Your task to perform on an android device: Clear the shopping cart on newegg. Search for dell alienware on newegg, select the first entry, and add it to the cart. Image 0: 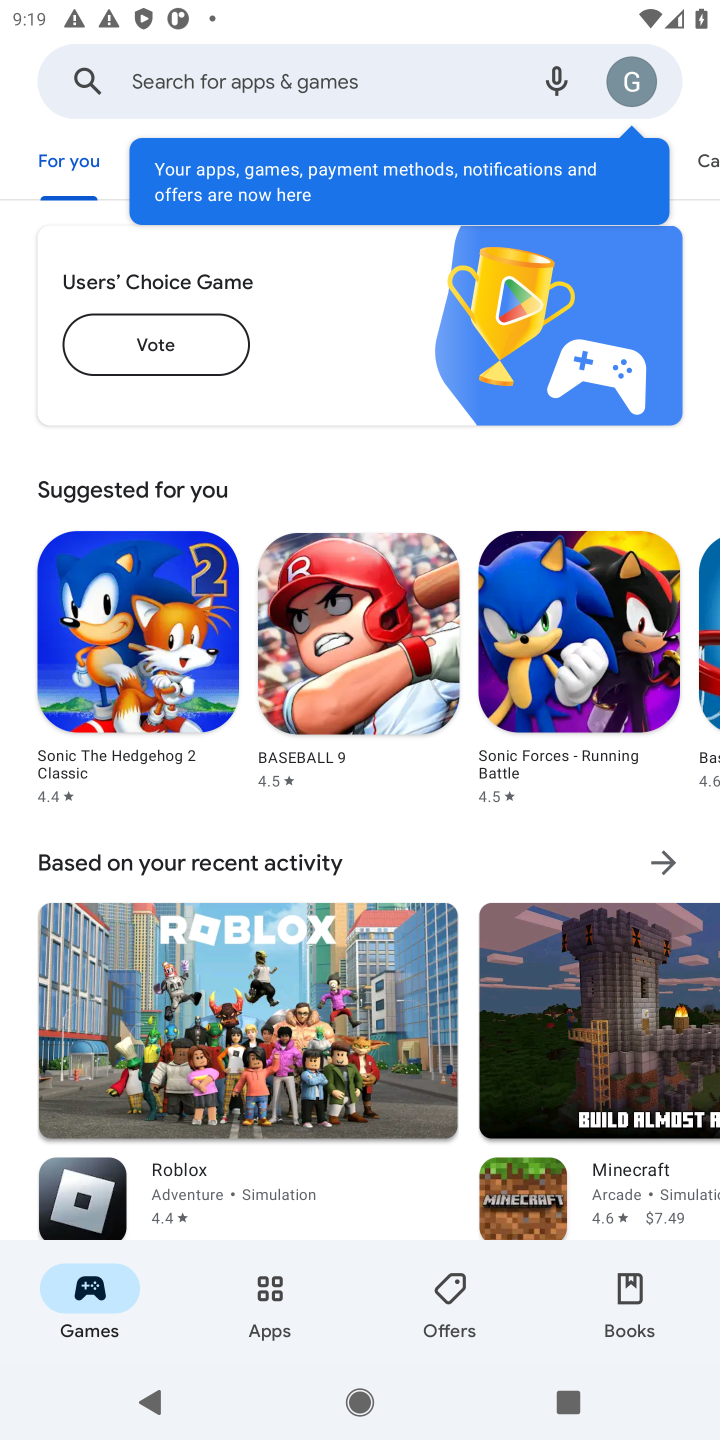
Step 0: press home button
Your task to perform on an android device: Clear the shopping cart on newegg. Search for dell alienware on newegg, select the first entry, and add it to the cart. Image 1: 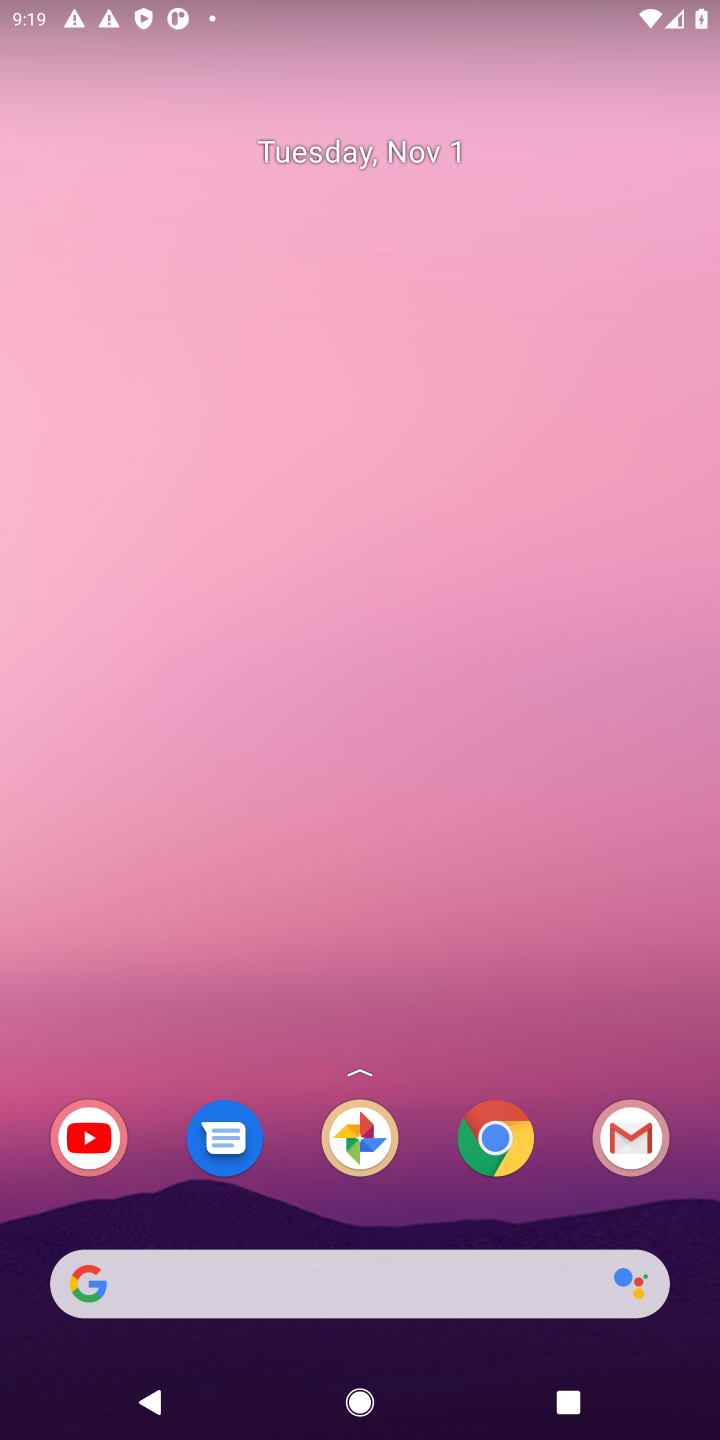
Step 1: click (494, 1137)
Your task to perform on an android device: Clear the shopping cart on newegg. Search for dell alienware on newegg, select the first entry, and add it to the cart. Image 2: 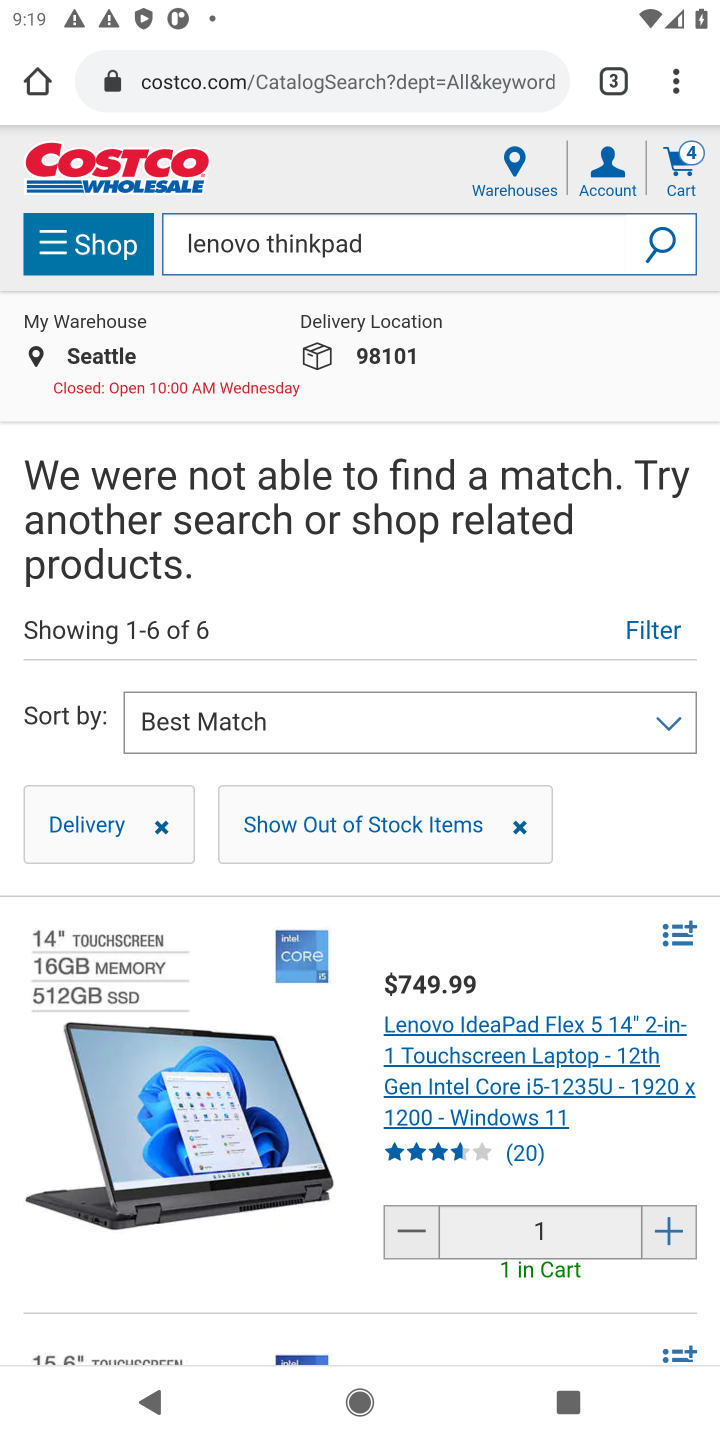
Step 2: drag from (670, 87) to (371, 178)
Your task to perform on an android device: Clear the shopping cart on newegg. Search for dell alienware on newegg, select the first entry, and add it to the cart. Image 3: 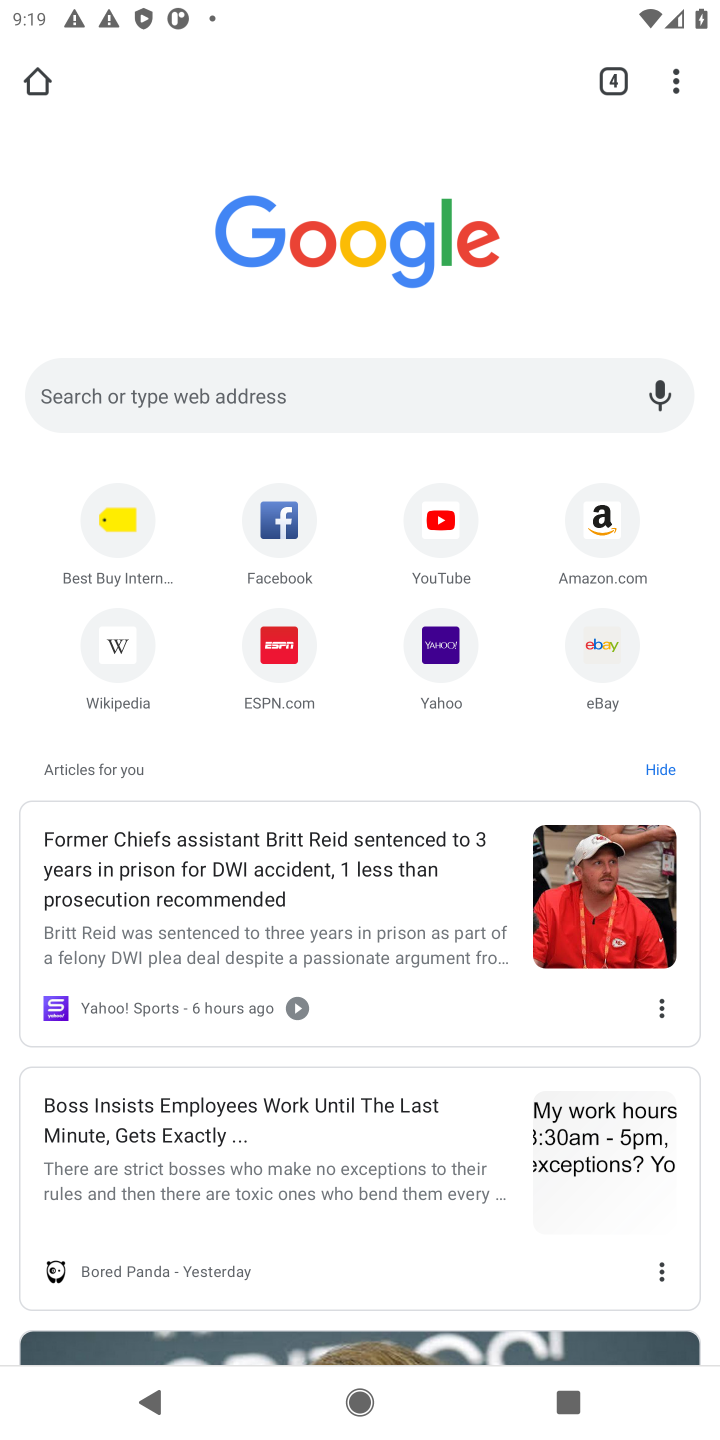
Step 3: click (253, 398)
Your task to perform on an android device: Clear the shopping cart on newegg. Search for dell alienware on newegg, select the first entry, and add it to the cart. Image 4: 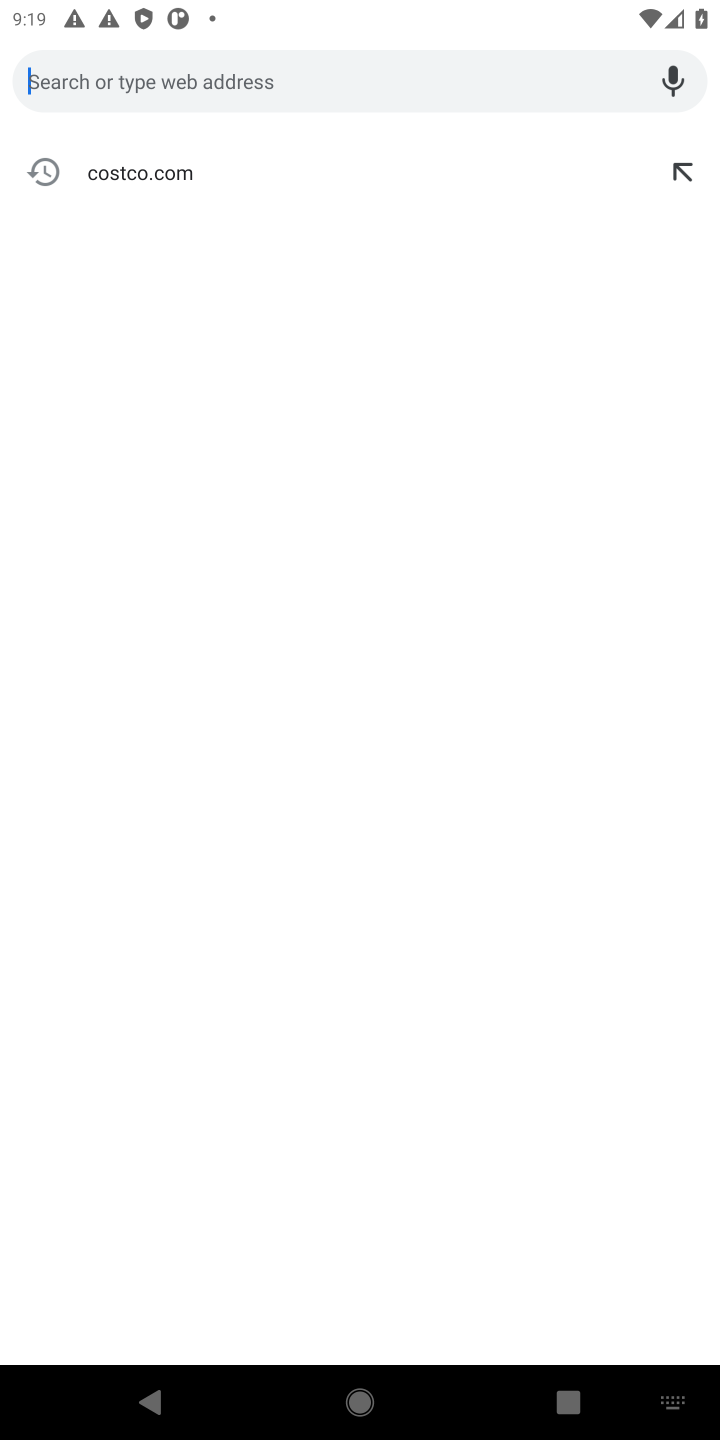
Step 4: type "newegg"
Your task to perform on an android device: Clear the shopping cart on newegg. Search for dell alienware on newegg, select the first entry, and add it to the cart. Image 5: 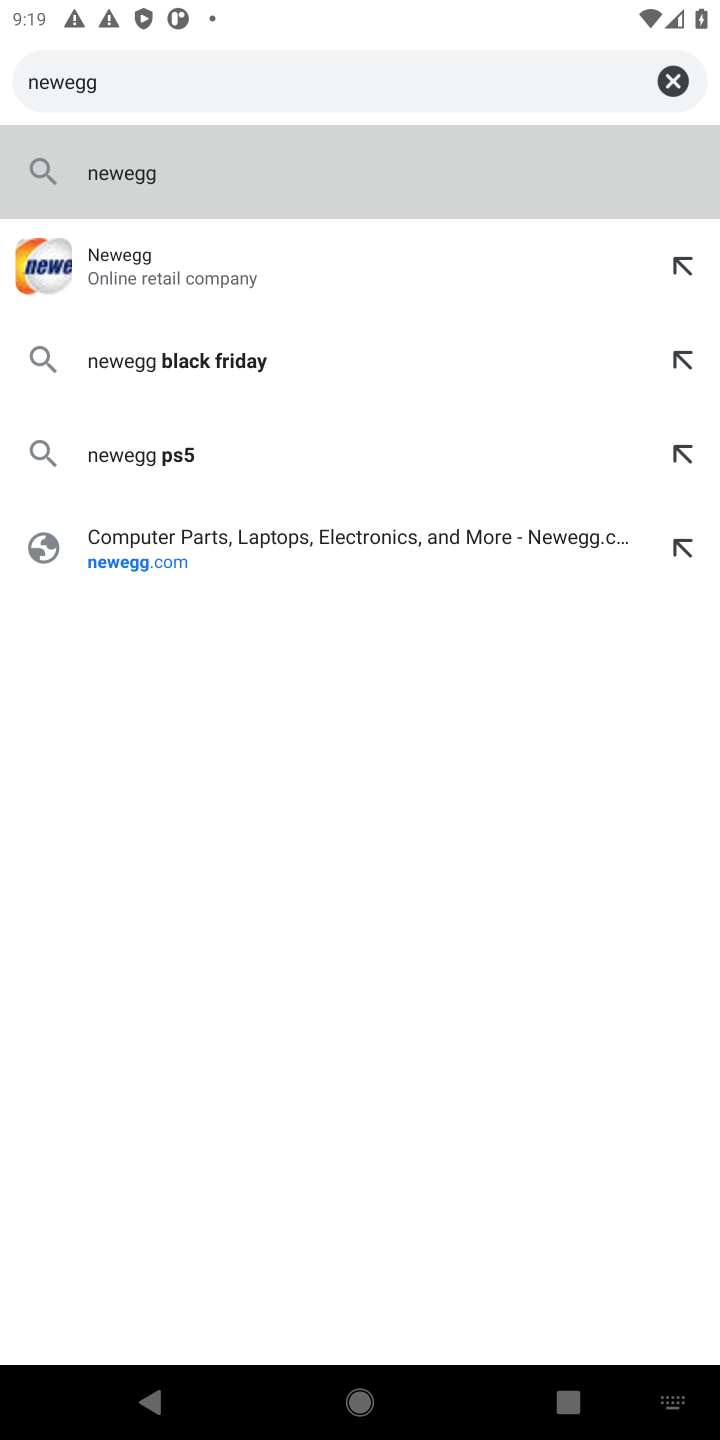
Step 5: type ""
Your task to perform on an android device: Clear the shopping cart on newegg. Search for dell alienware on newegg, select the first entry, and add it to the cart. Image 6: 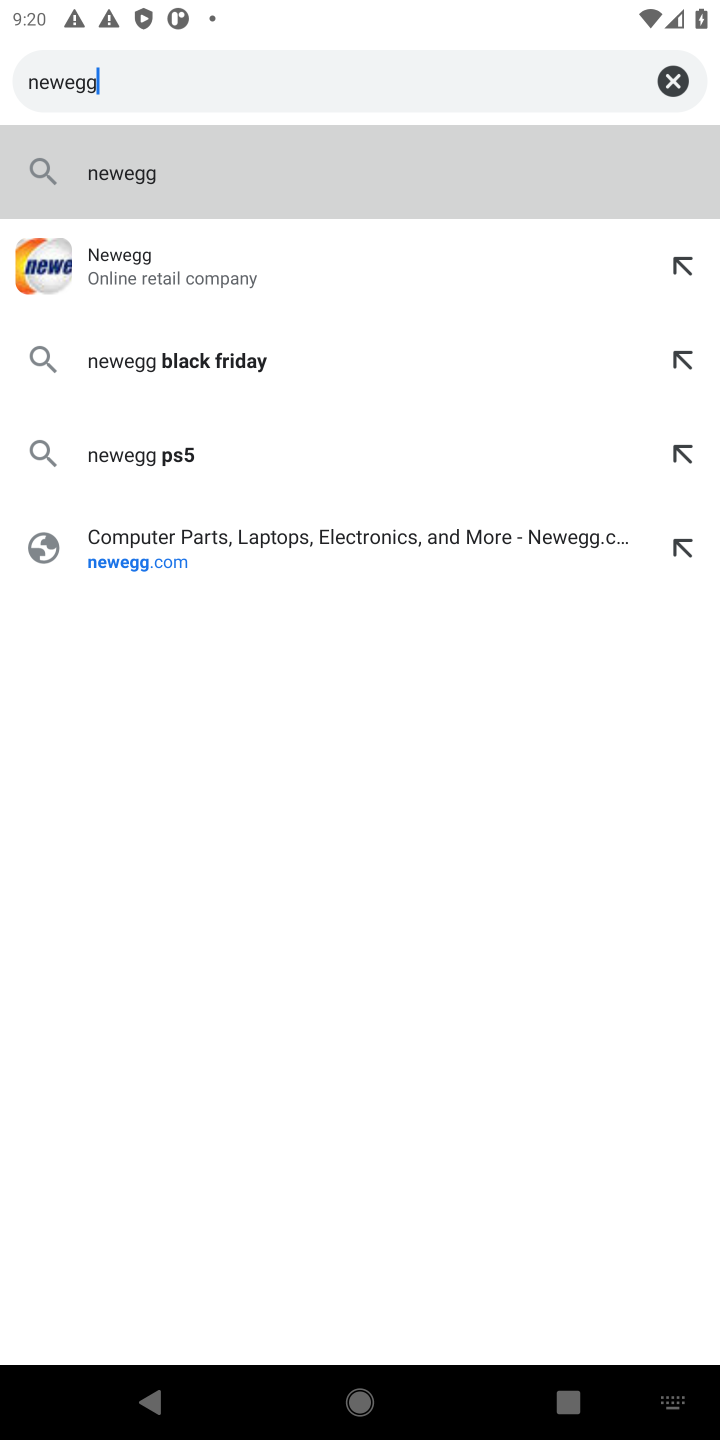
Step 6: click (119, 162)
Your task to perform on an android device: Clear the shopping cart on newegg. Search for dell alienware on newegg, select the first entry, and add it to the cart. Image 7: 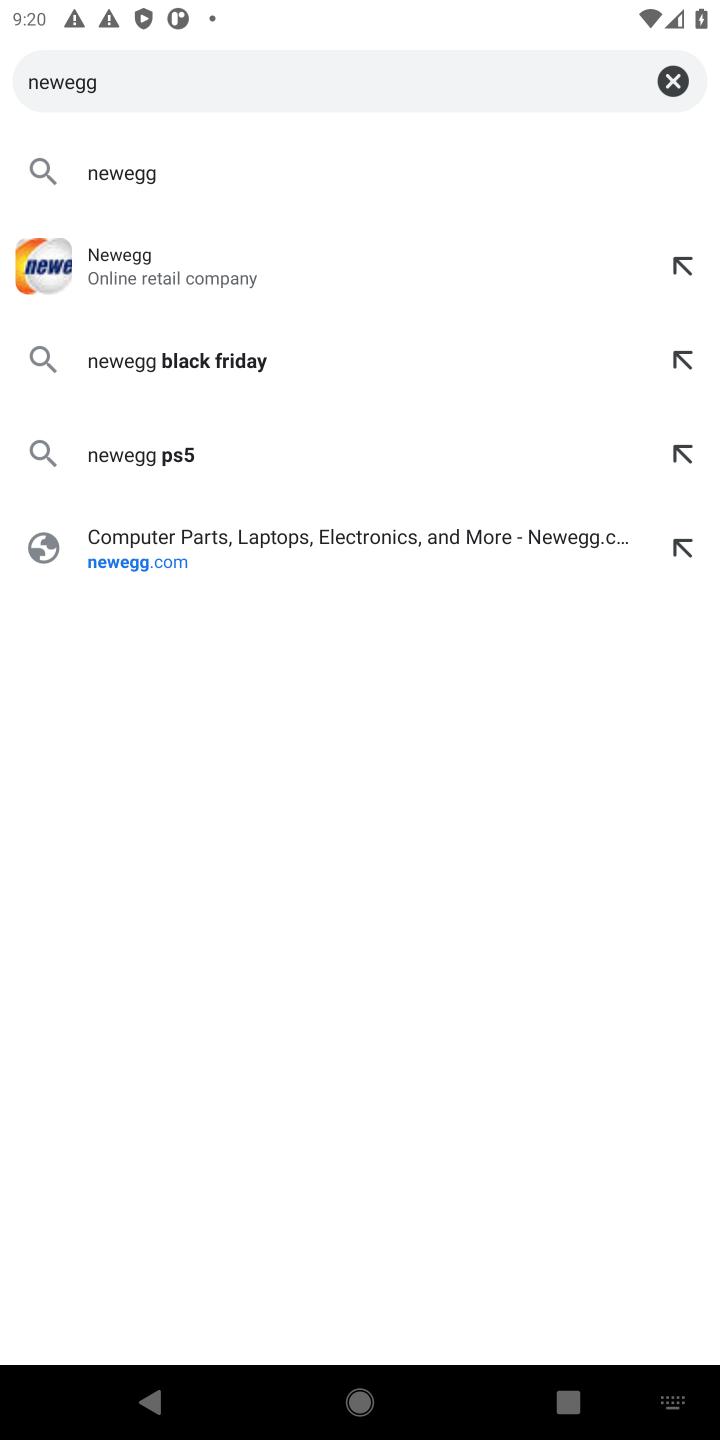
Step 7: click (148, 250)
Your task to perform on an android device: Clear the shopping cart on newegg. Search for dell alienware on newegg, select the first entry, and add it to the cart. Image 8: 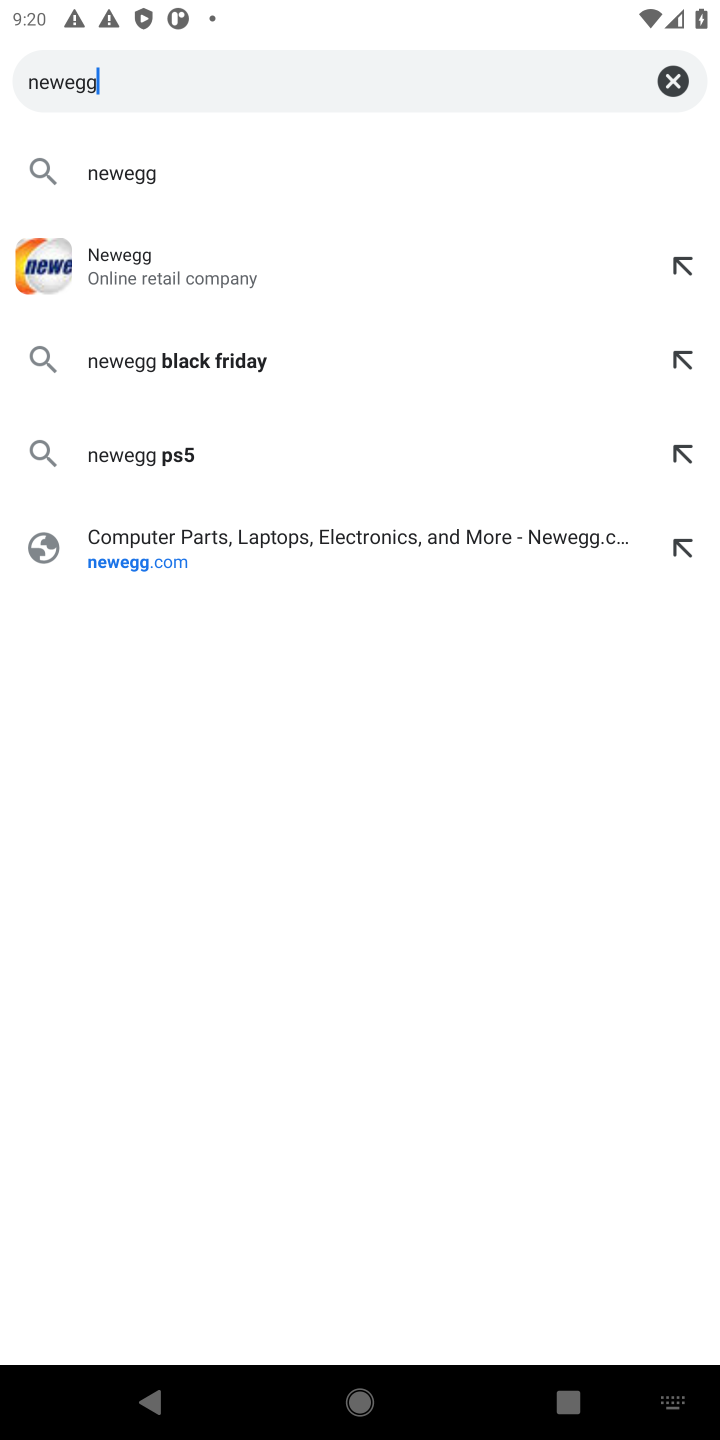
Step 8: click (106, 274)
Your task to perform on an android device: Clear the shopping cart on newegg. Search for dell alienware on newegg, select the first entry, and add it to the cart. Image 9: 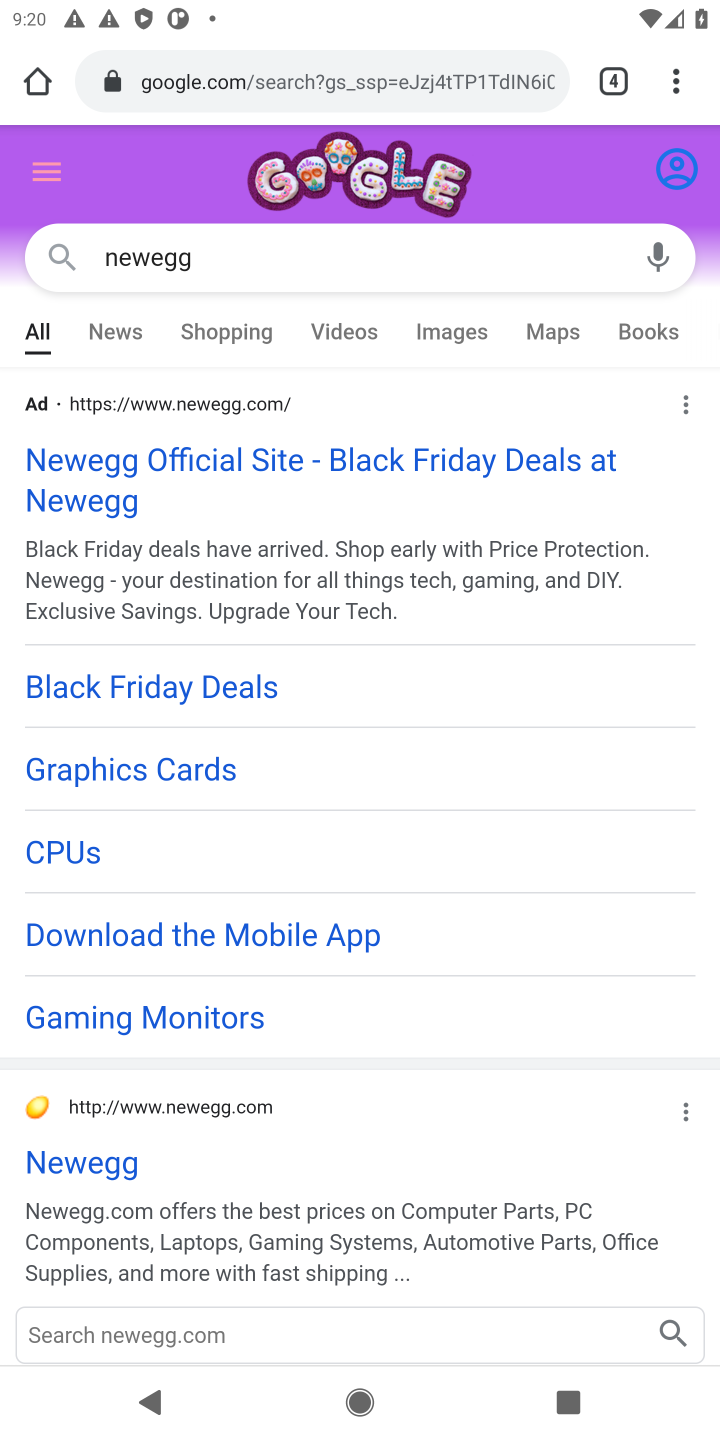
Step 9: click (102, 1163)
Your task to perform on an android device: Clear the shopping cart on newegg. Search for dell alienware on newegg, select the first entry, and add it to the cart. Image 10: 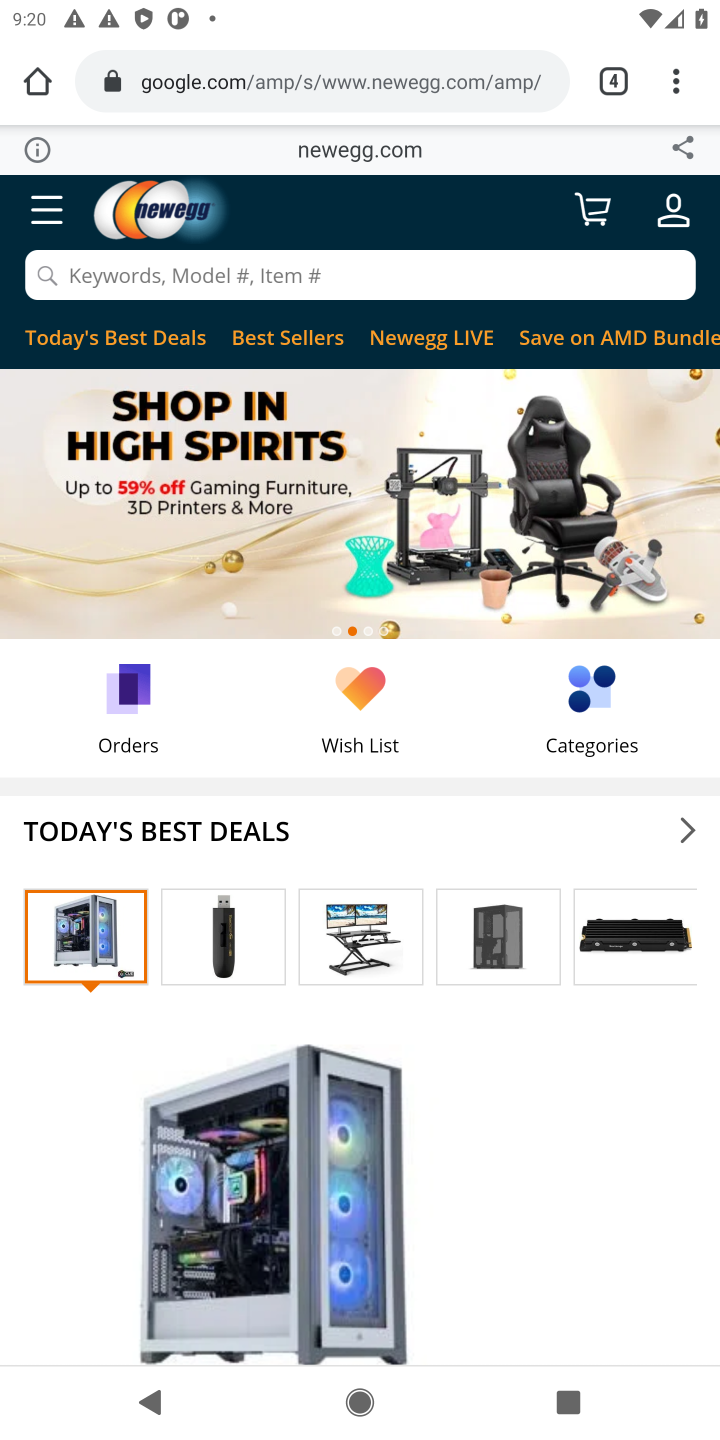
Step 10: click (55, 221)
Your task to perform on an android device: Clear the shopping cart on newegg. Search for dell alienware on newegg, select the first entry, and add it to the cart. Image 11: 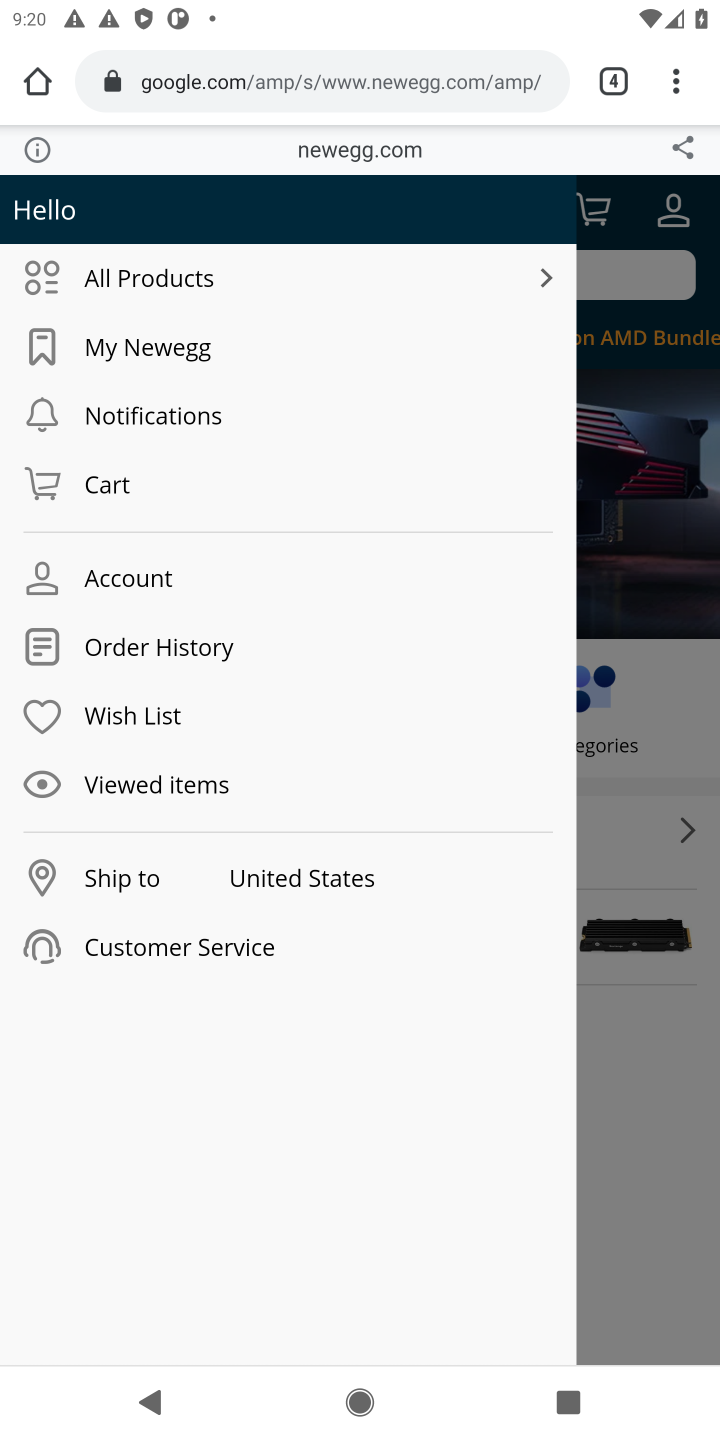
Step 11: click (48, 205)
Your task to perform on an android device: Clear the shopping cart on newegg. Search for dell alienware on newegg, select the first entry, and add it to the cart. Image 12: 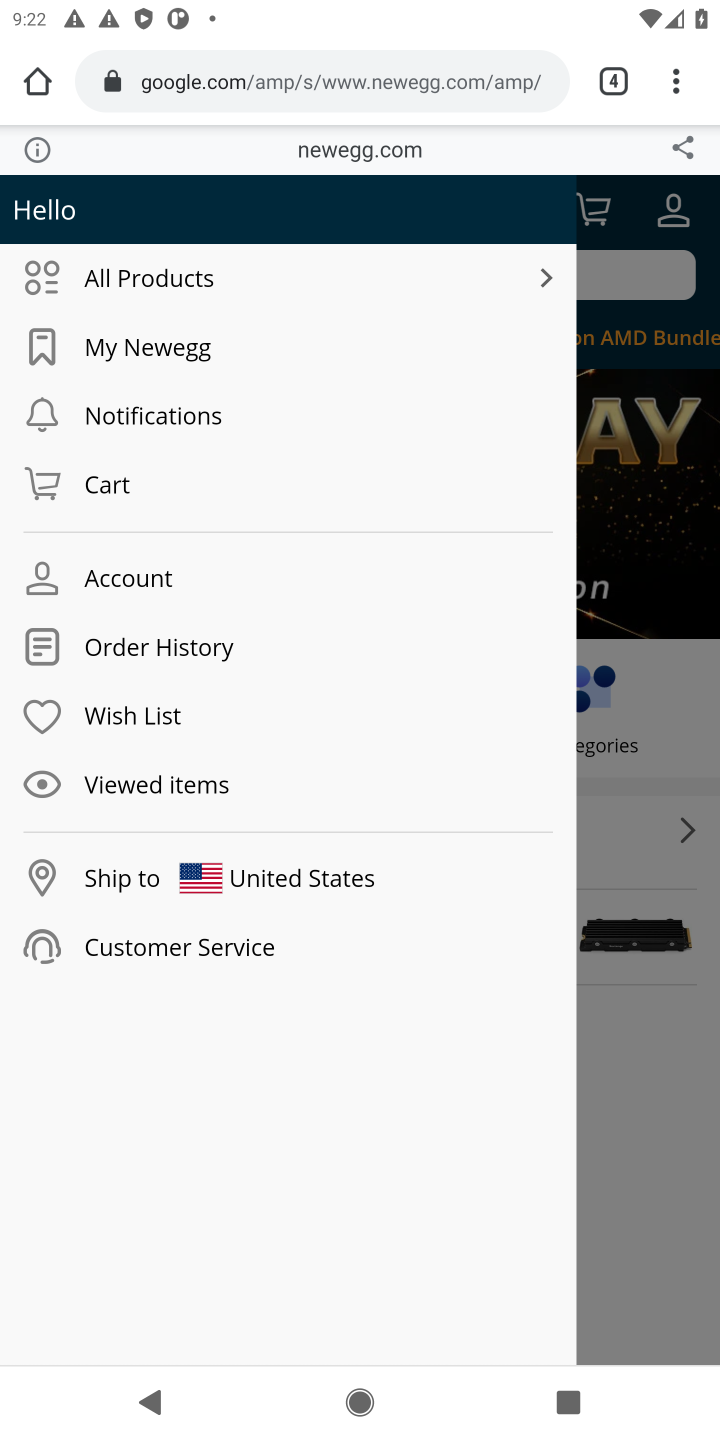
Step 12: click (93, 486)
Your task to perform on an android device: Clear the shopping cart on newegg. Search for dell alienware on newegg, select the first entry, and add it to the cart. Image 13: 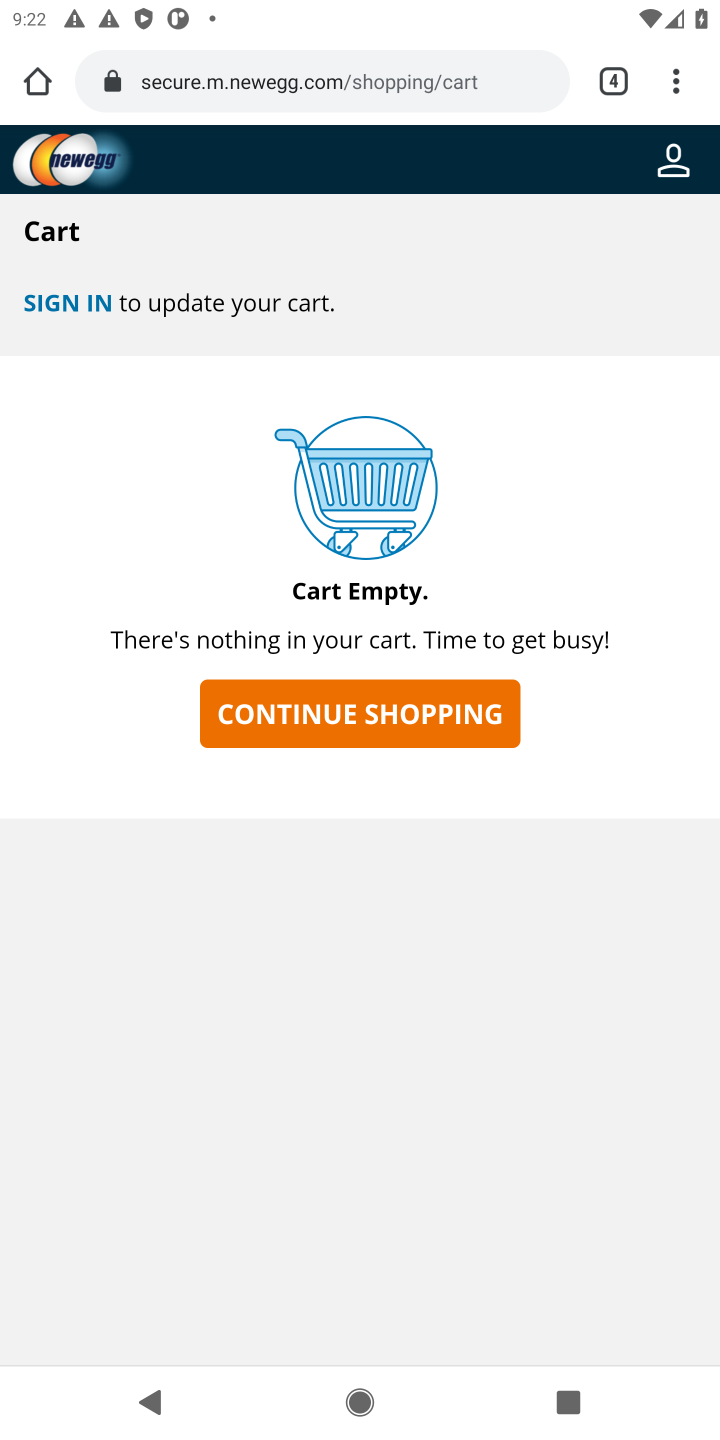
Step 13: click (261, 729)
Your task to perform on an android device: Clear the shopping cart on newegg. Search for dell alienware on newegg, select the first entry, and add it to the cart. Image 14: 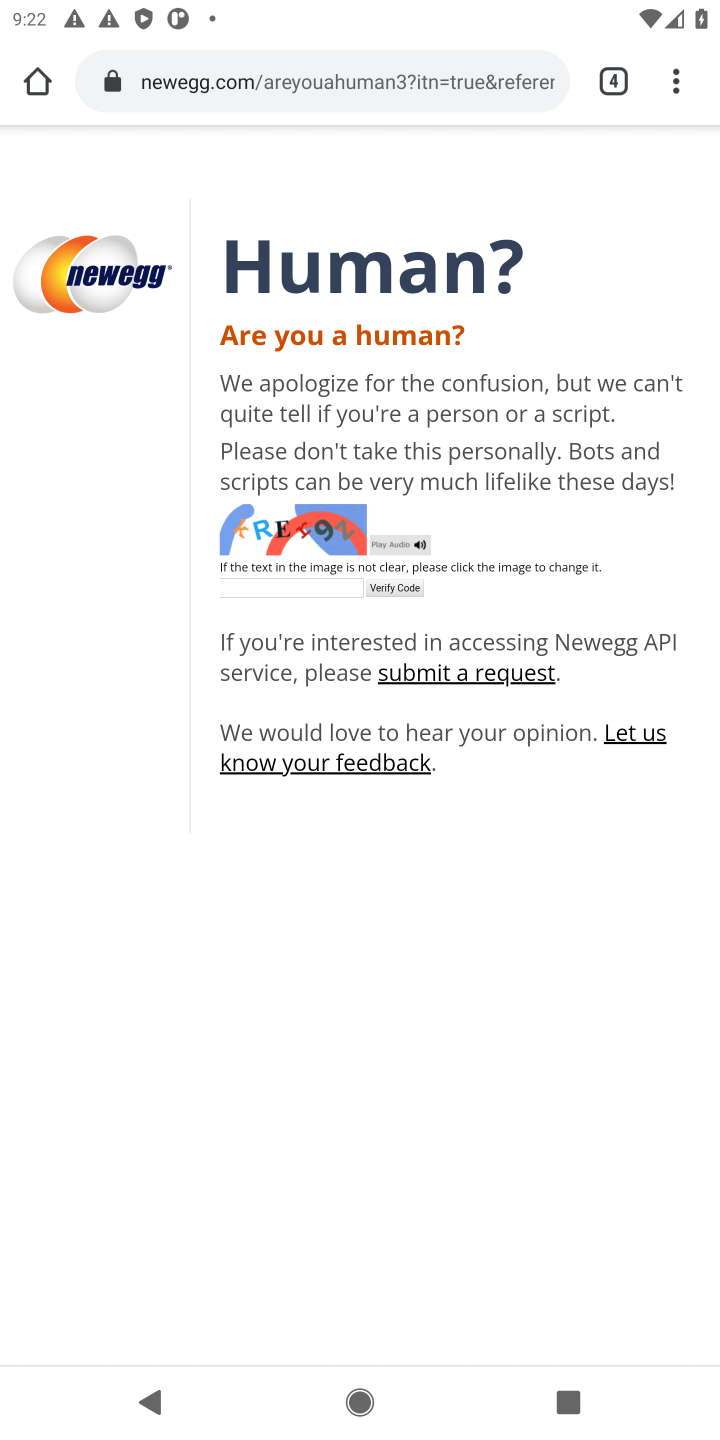
Step 14: click (379, 338)
Your task to perform on an android device: Clear the shopping cart on newegg. Search for dell alienware on newegg, select the first entry, and add it to the cart. Image 15: 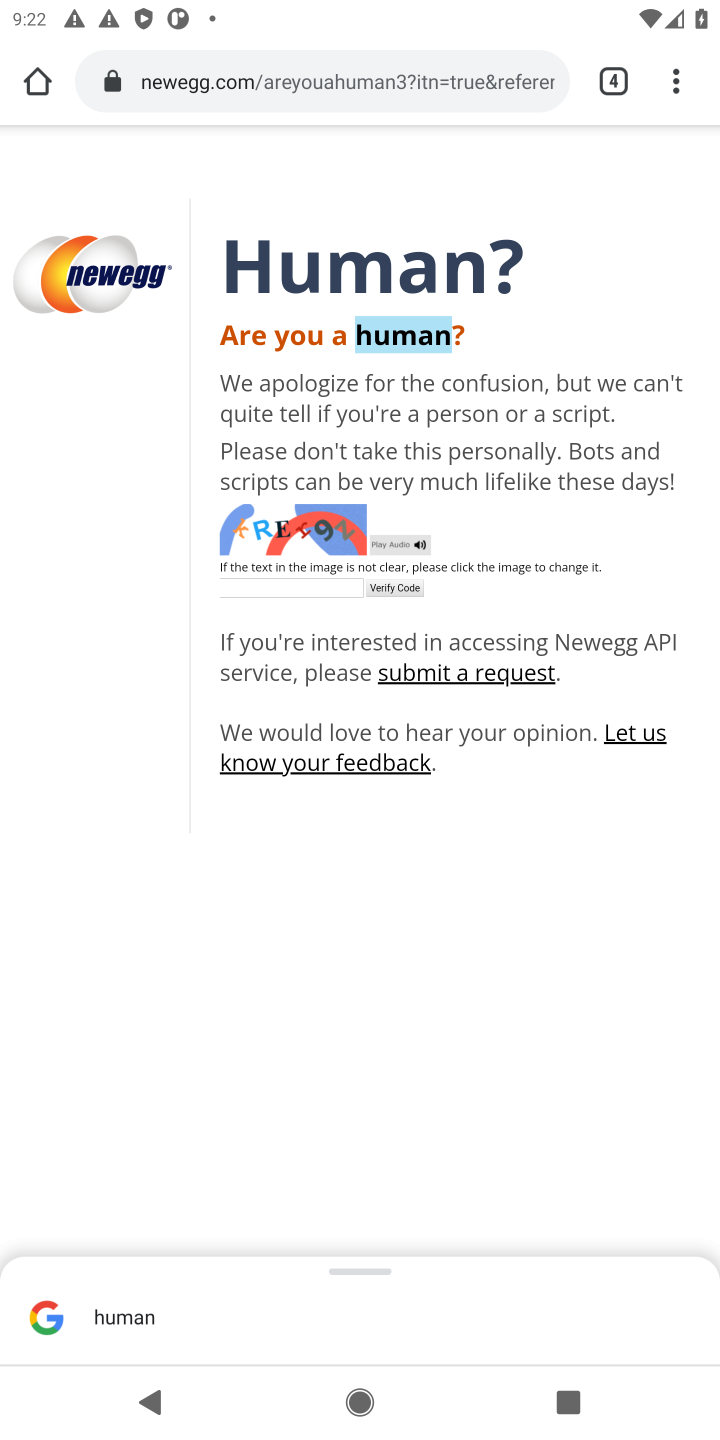
Step 15: click (294, 336)
Your task to perform on an android device: Clear the shopping cart on newegg. Search for dell alienware on newegg, select the first entry, and add it to the cart. Image 16: 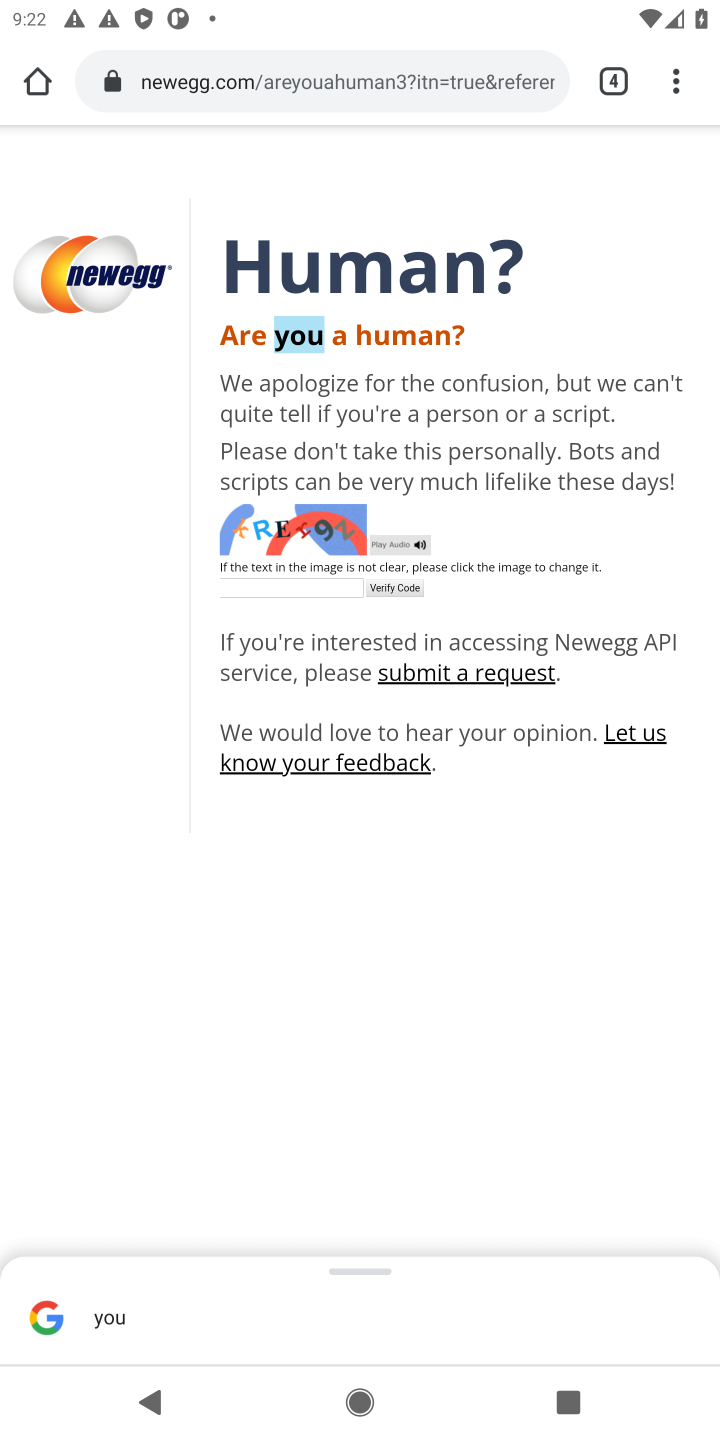
Step 16: task complete